Your task to perform on an android device: delete browsing data in the chrome app Image 0: 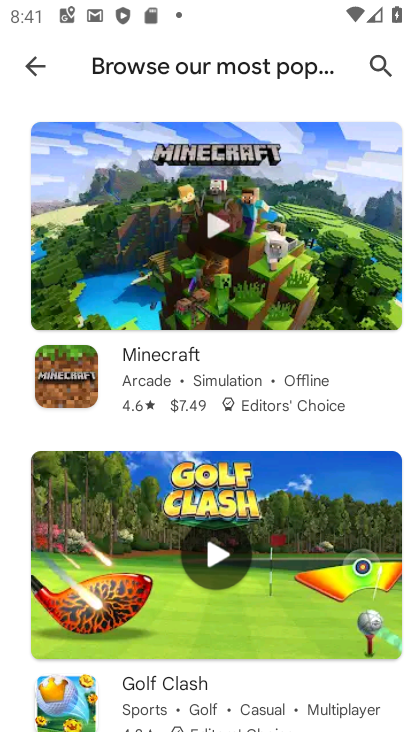
Step 0: press home button
Your task to perform on an android device: delete browsing data in the chrome app Image 1: 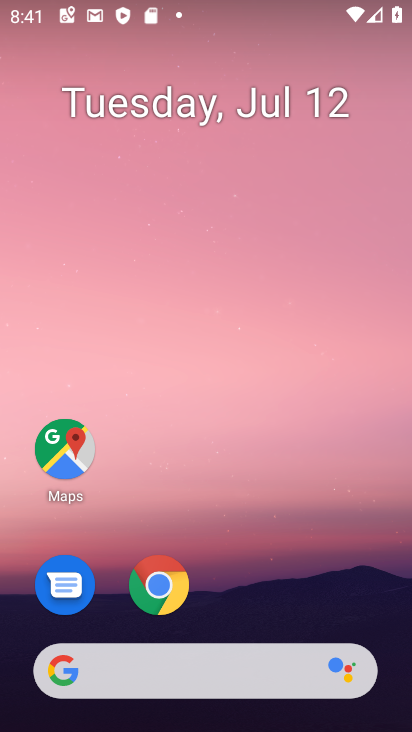
Step 1: click (166, 592)
Your task to perform on an android device: delete browsing data in the chrome app Image 2: 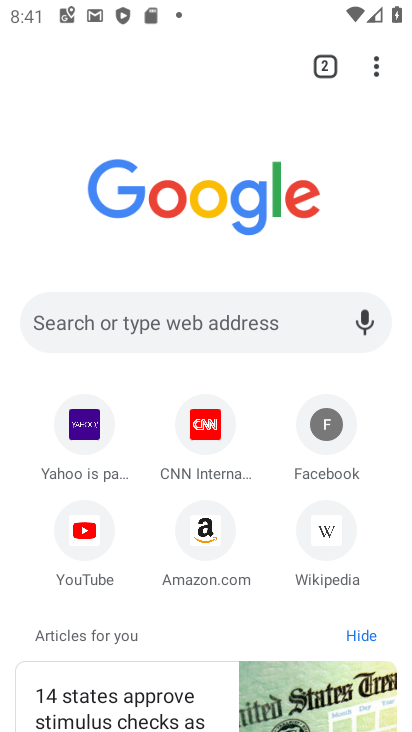
Step 2: click (374, 68)
Your task to perform on an android device: delete browsing data in the chrome app Image 3: 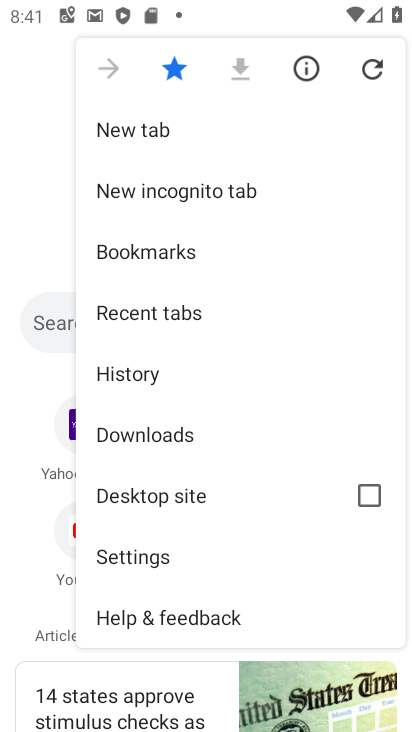
Step 3: click (144, 375)
Your task to perform on an android device: delete browsing data in the chrome app Image 4: 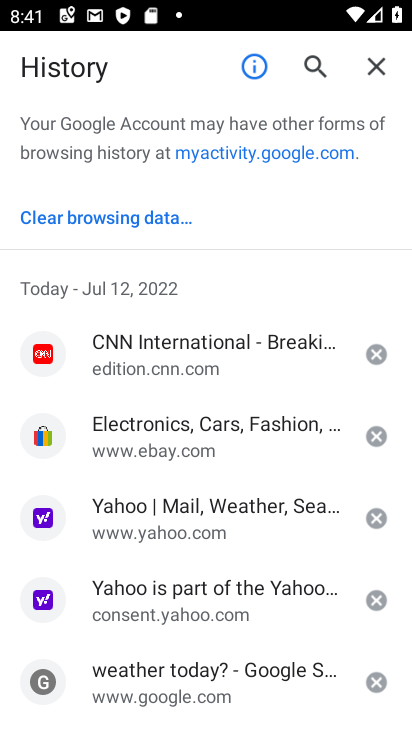
Step 4: click (125, 220)
Your task to perform on an android device: delete browsing data in the chrome app Image 5: 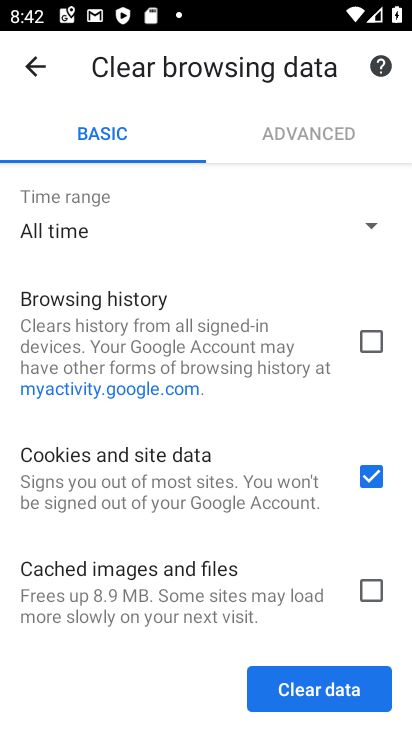
Step 5: click (371, 342)
Your task to perform on an android device: delete browsing data in the chrome app Image 6: 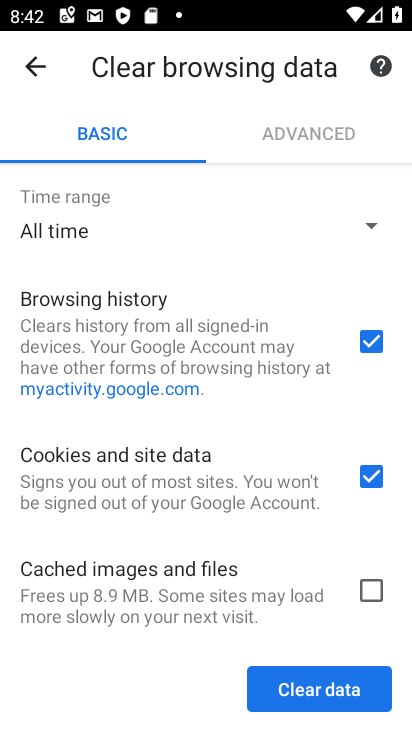
Step 6: click (368, 590)
Your task to perform on an android device: delete browsing data in the chrome app Image 7: 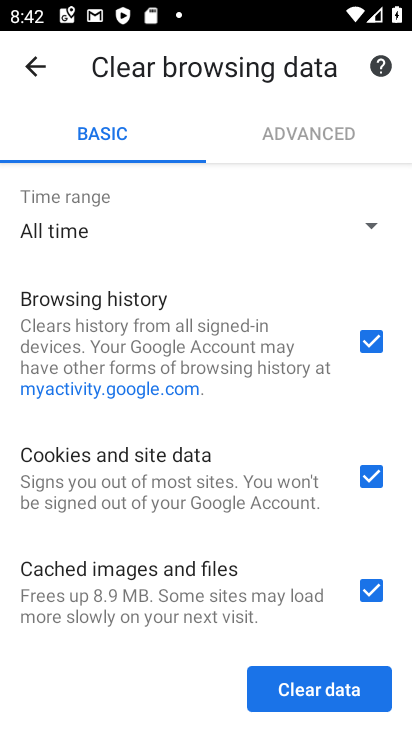
Step 7: click (343, 682)
Your task to perform on an android device: delete browsing data in the chrome app Image 8: 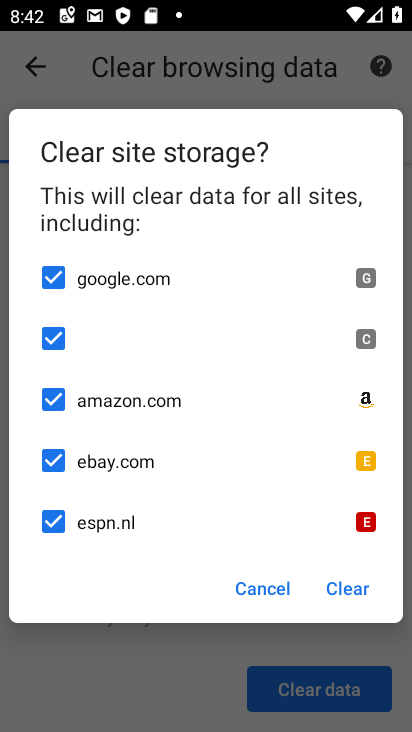
Step 8: click (358, 586)
Your task to perform on an android device: delete browsing data in the chrome app Image 9: 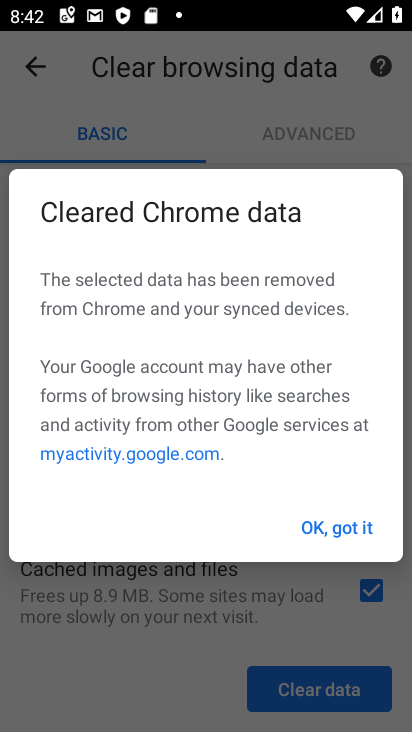
Step 9: click (359, 522)
Your task to perform on an android device: delete browsing data in the chrome app Image 10: 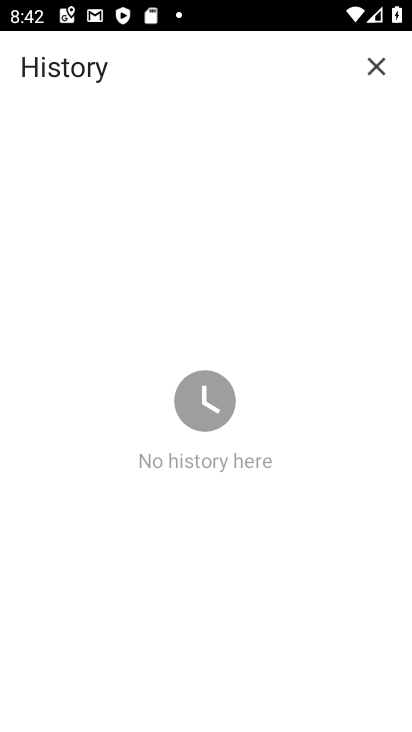
Step 10: task complete